Your task to perform on an android device: See recent photos Image 0: 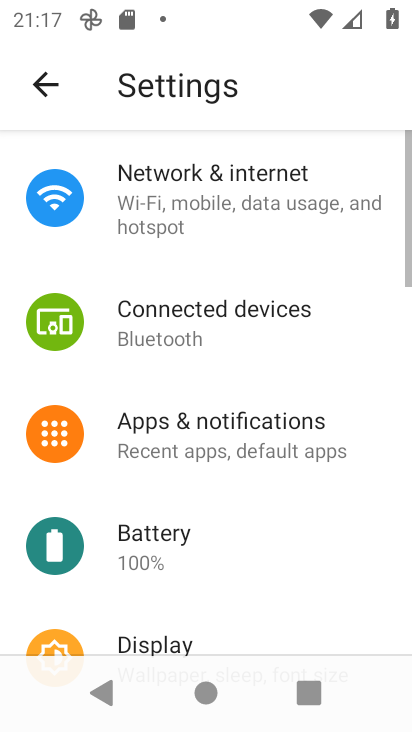
Step 0: press home button
Your task to perform on an android device: See recent photos Image 1: 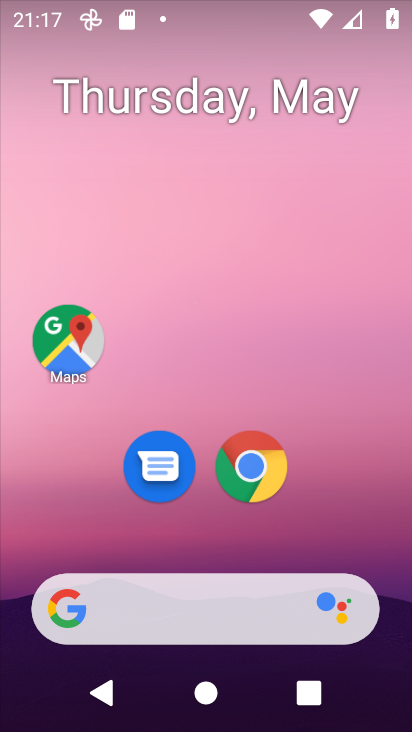
Step 1: drag from (376, 523) to (328, 167)
Your task to perform on an android device: See recent photos Image 2: 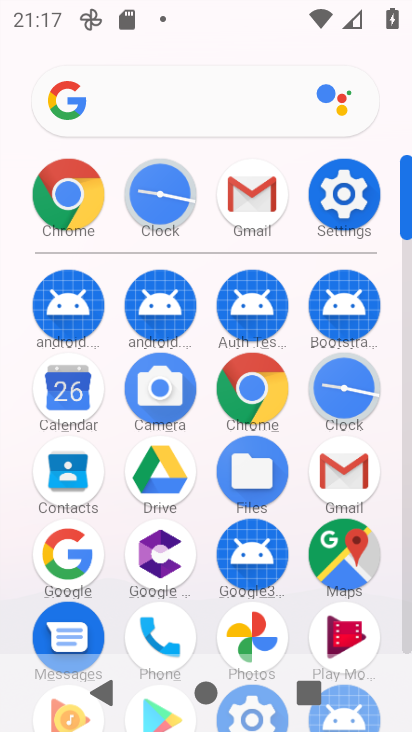
Step 2: click (351, 238)
Your task to perform on an android device: See recent photos Image 3: 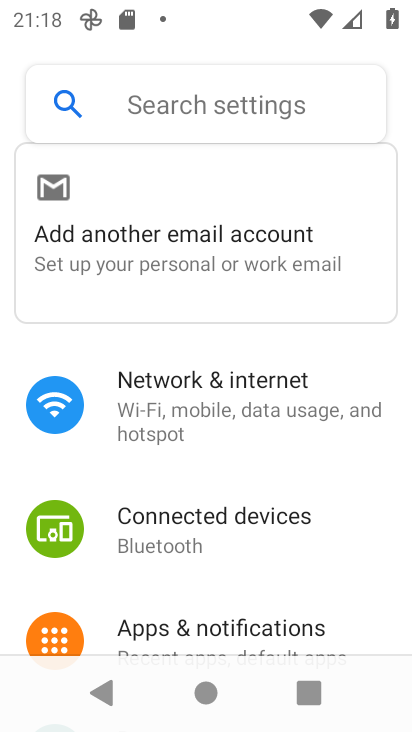
Step 3: press home button
Your task to perform on an android device: See recent photos Image 4: 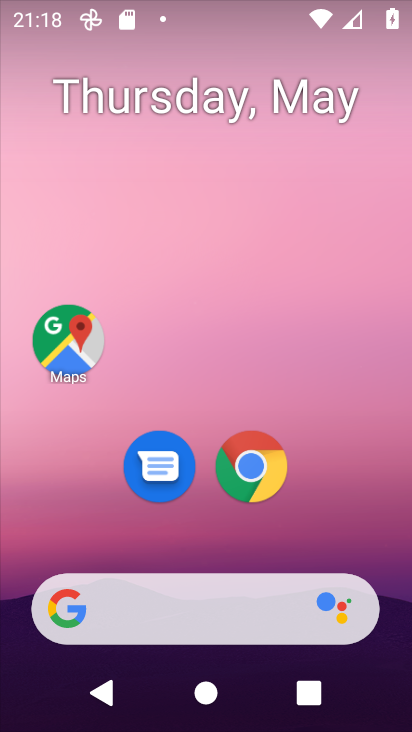
Step 4: drag from (332, 522) to (332, 137)
Your task to perform on an android device: See recent photos Image 5: 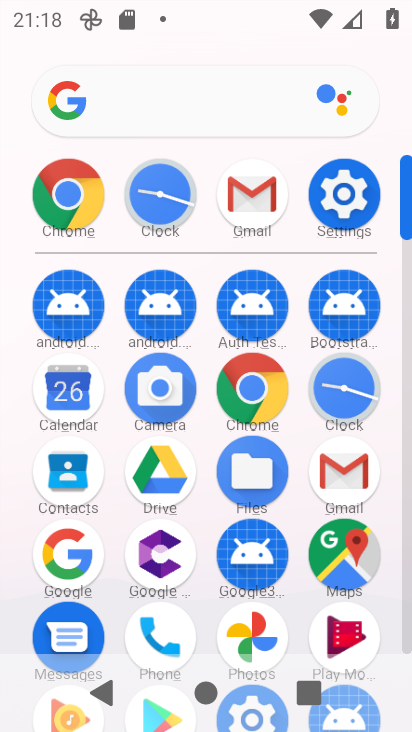
Step 5: click (260, 627)
Your task to perform on an android device: See recent photos Image 6: 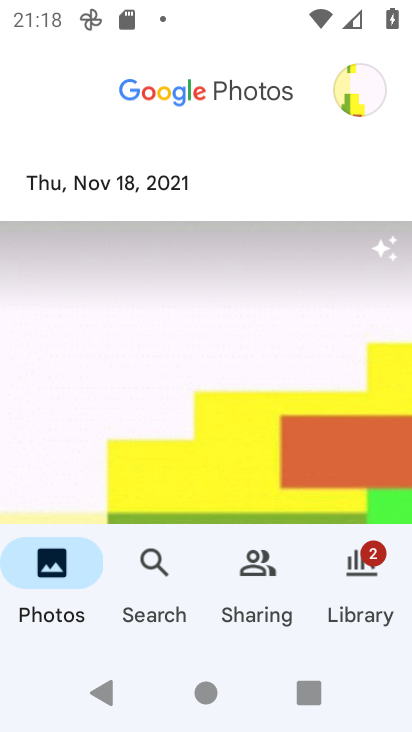
Step 6: task complete